Your task to perform on an android device: turn on location history Image 0: 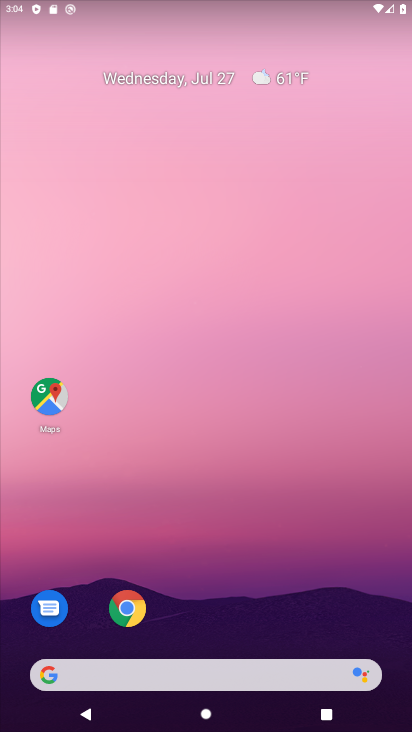
Step 0: drag from (209, 618) to (272, 48)
Your task to perform on an android device: turn on location history Image 1: 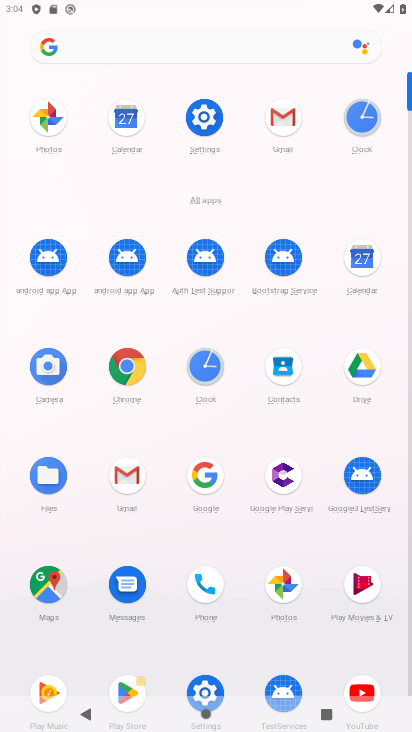
Step 1: click (197, 121)
Your task to perform on an android device: turn on location history Image 2: 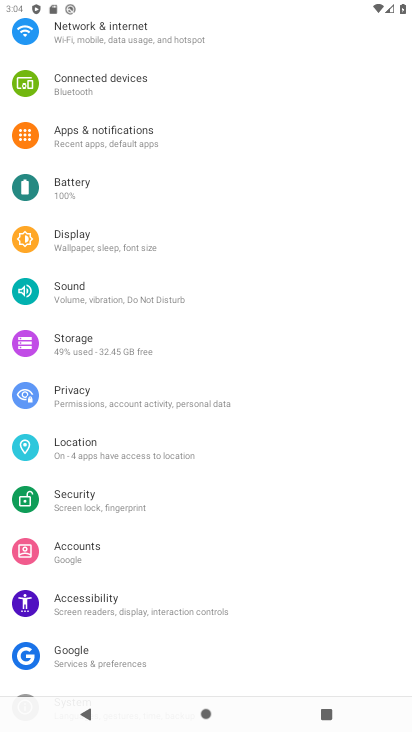
Step 2: click (84, 448)
Your task to perform on an android device: turn on location history Image 3: 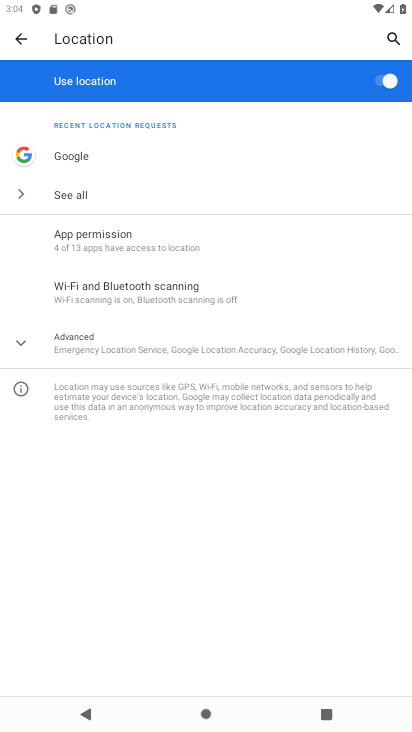
Step 3: click (128, 352)
Your task to perform on an android device: turn on location history Image 4: 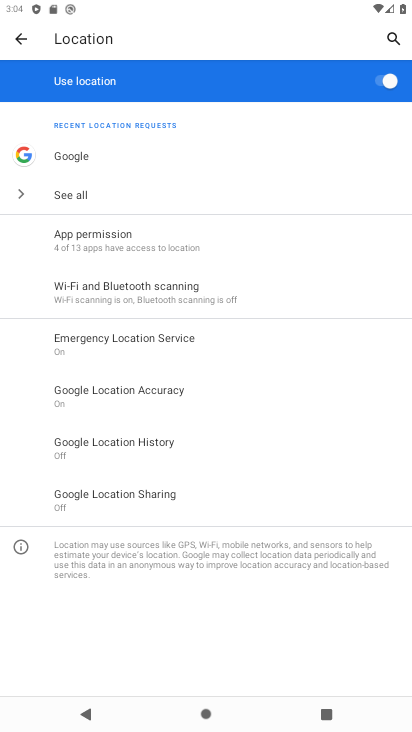
Step 4: click (130, 446)
Your task to perform on an android device: turn on location history Image 5: 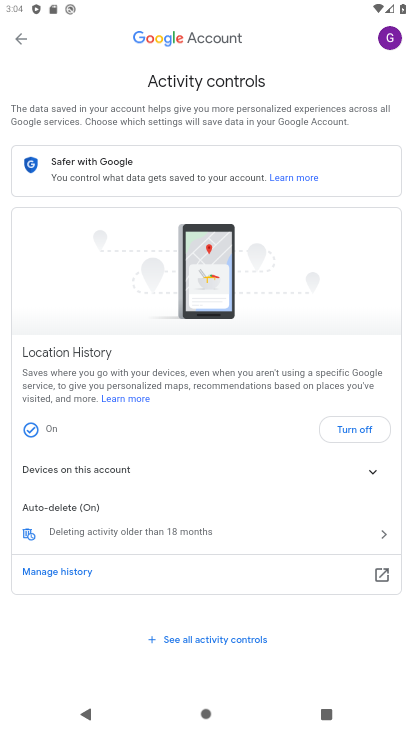
Step 5: task complete